Your task to perform on an android device: choose inbox layout in the gmail app Image 0: 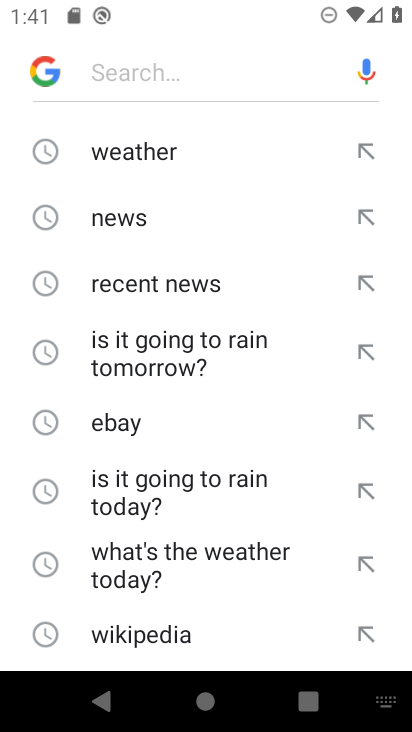
Step 0: press home button
Your task to perform on an android device: choose inbox layout in the gmail app Image 1: 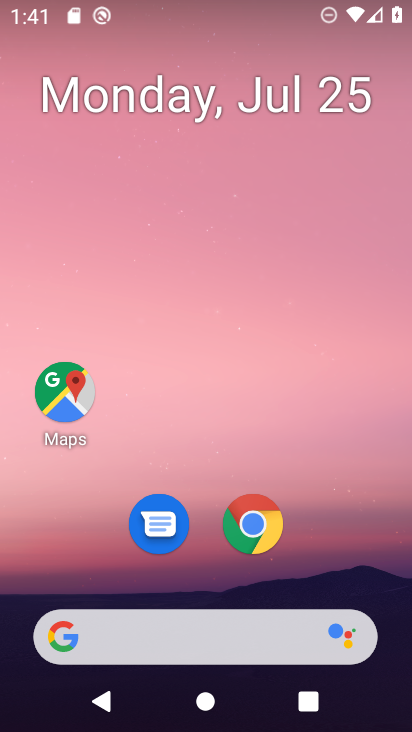
Step 1: drag from (207, 598) to (298, 88)
Your task to perform on an android device: choose inbox layout in the gmail app Image 2: 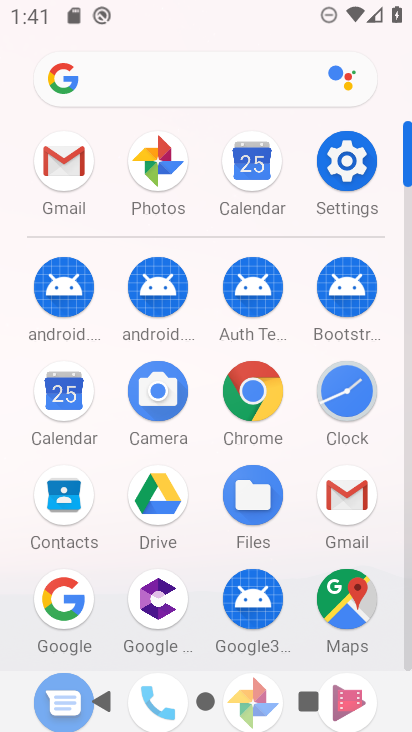
Step 2: click (346, 499)
Your task to perform on an android device: choose inbox layout in the gmail app Image 3: 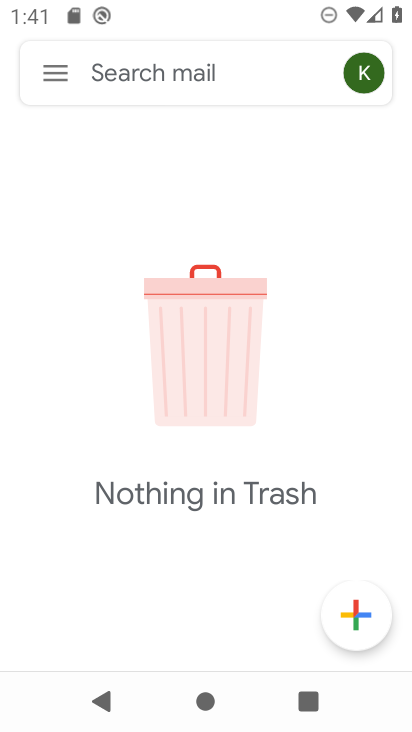
Step 3: click (53, 66)
Your task to perform on an android device: choose inbox layout in the gmail app Image 4: 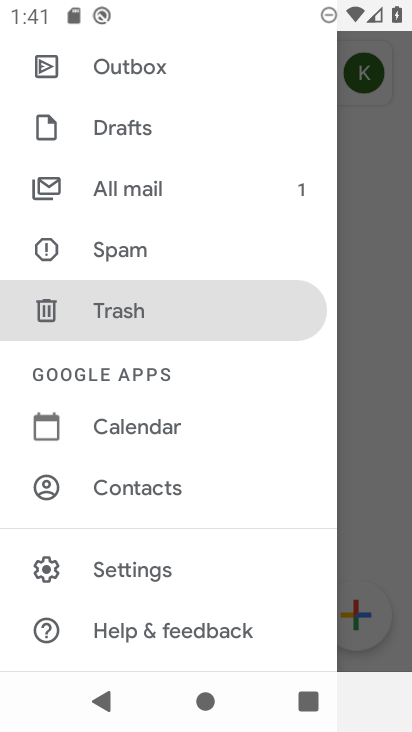
Step 4: click (165, 568)
Your task to perform on an android device: choose inbox layout in the gmail app Image 5: 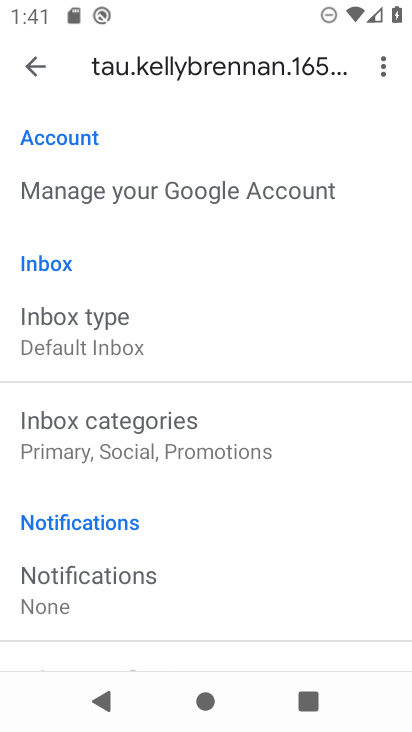
Step 5: click (117, 335)
Your task to perform on an android device: choose inbox layout in the gmail app Image 6: 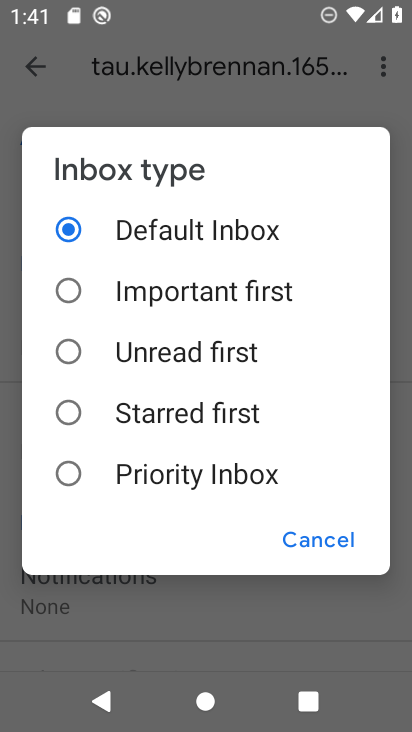
Step 6: click (70, 474)
Your task to perform on an android device: choose inbox layout in the gmail app Image 7: 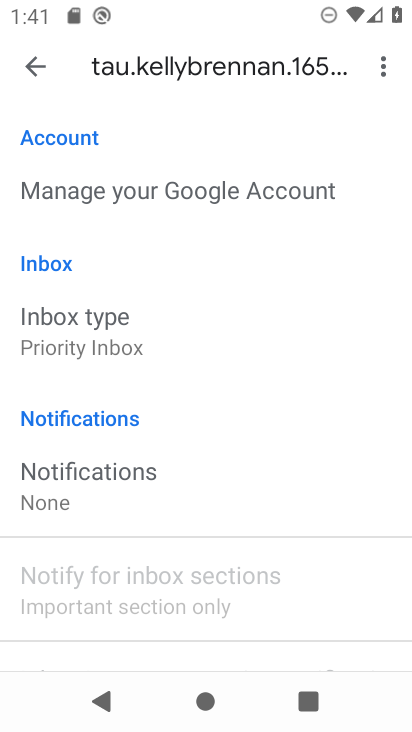
Step 7: task complete